Your task to perform on an android device: turn on priority inbox in the gmail app Image 0: 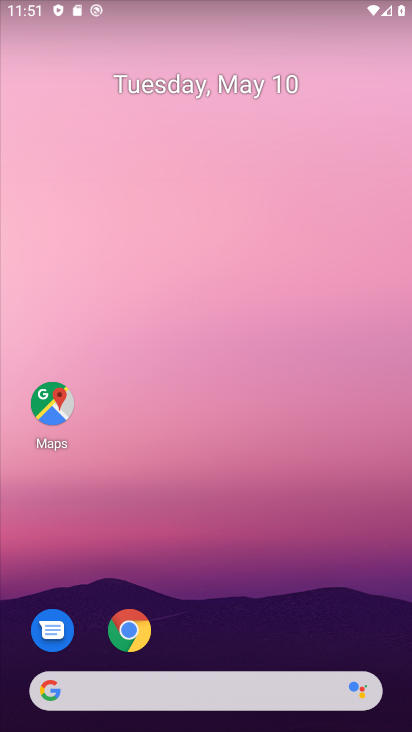
Step 0: drag from (188, 650) to (212, 724)
Your task to perform on an android device: turn on priority inbox in the gmail app Image 1: 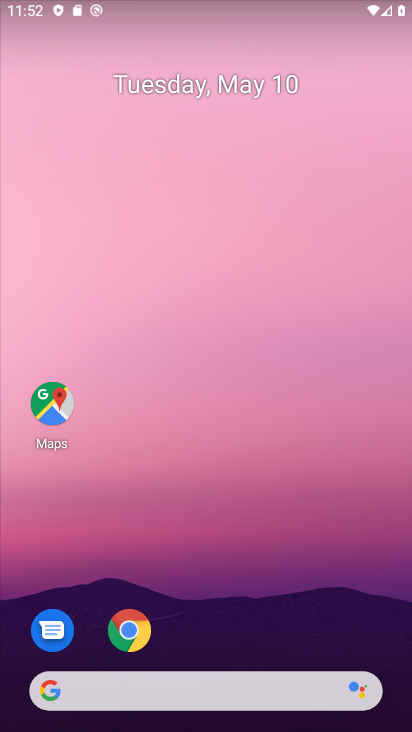
Step 1: drag from (202, 659) to (160, 8)
Your task to perform on an android device: turn on priority inbox in the gmail app Image 2: 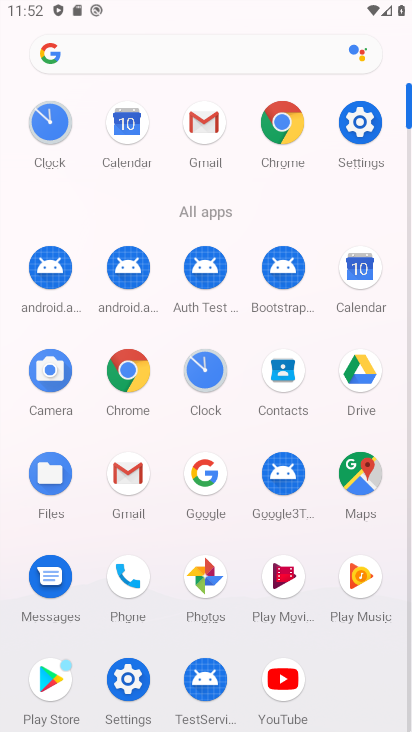
Step 2: click (124, 473)
Your task to perform on an android device: turn on priority inbox in the gmail app Image 3: 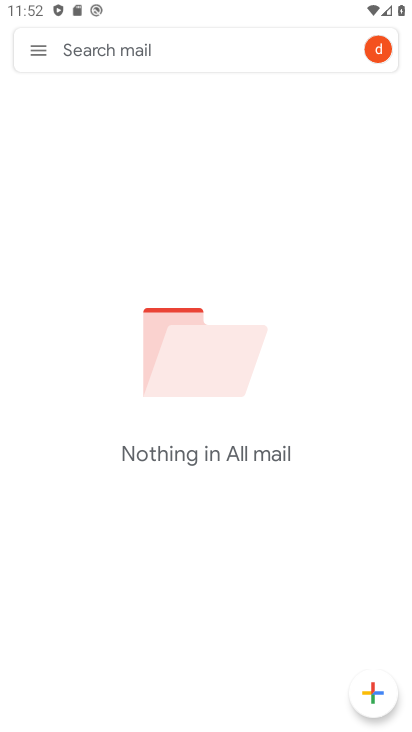
Step 3: click (49, 44)
Your task to perform on an android device: turn on priority inbox in the gmail app Image 4: 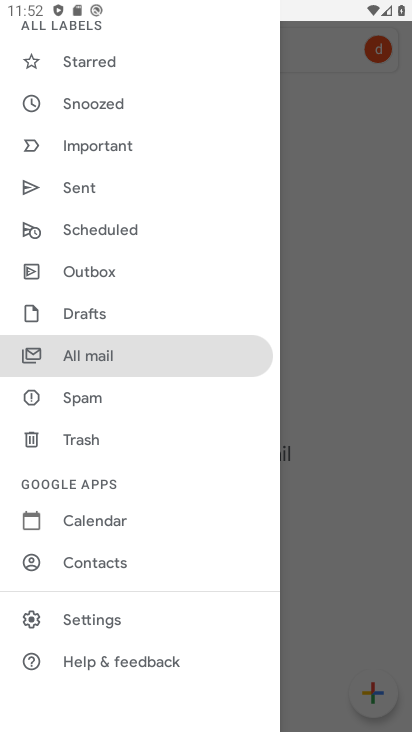
Step 4: click (94, 623)
Your task to perform on an android device: turn on priority inbox in the gmail app Image 5: 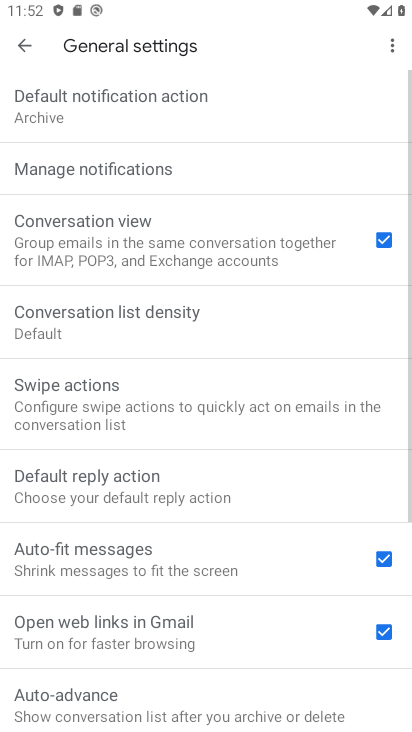
Step 5: click (20, 49)
Your task to perform on an android device: turn on priority inbox in the gmail app Image 6: 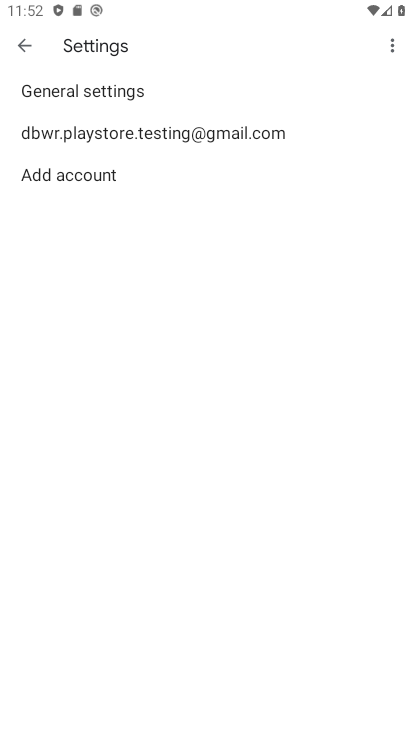
Step 6: click (89, 130)
Your task to perform on an android device: turn on priority inbox in the gmail app Image 7: 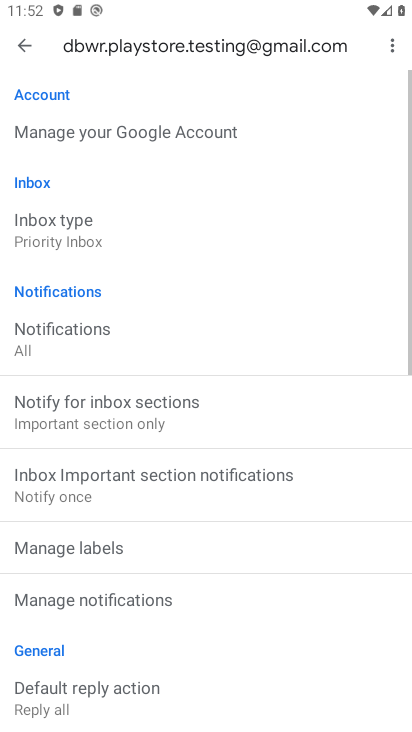
Step 7: click (45, 226)
Your task to perform on an android device: turn on priority inbox in the gmail app Image 8: 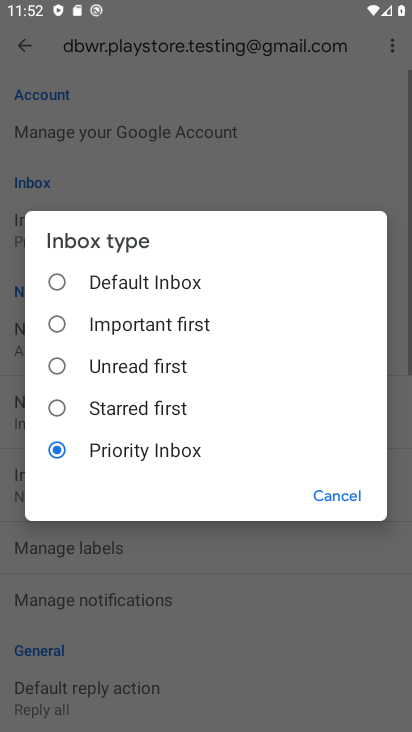
Step 8: click (139, 446)
Your task to perform on an android device: turn on priority inbox in the gmail app Image 9: 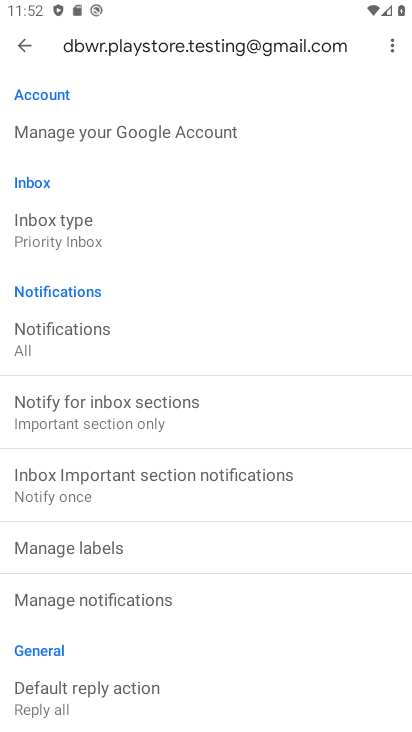
Step 9: task complete